Your task to perform on an android device: turn off notifications settings in the gmail app Image 0: 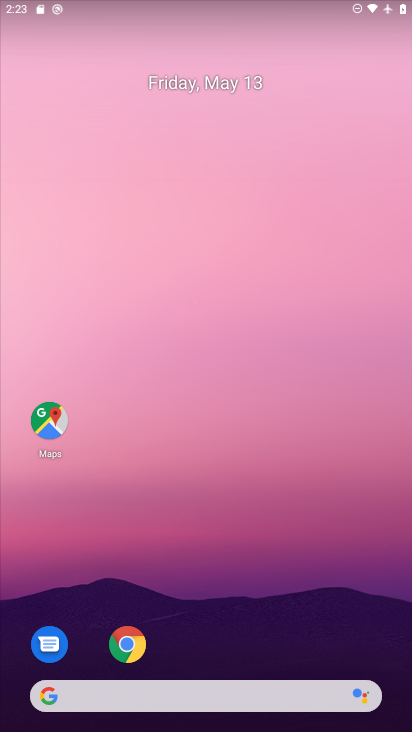
Step 0: drag from (356, 607) to (206, 106)
Your task to perform on an android device: turn off notifications settings in the gmail app Image 1: 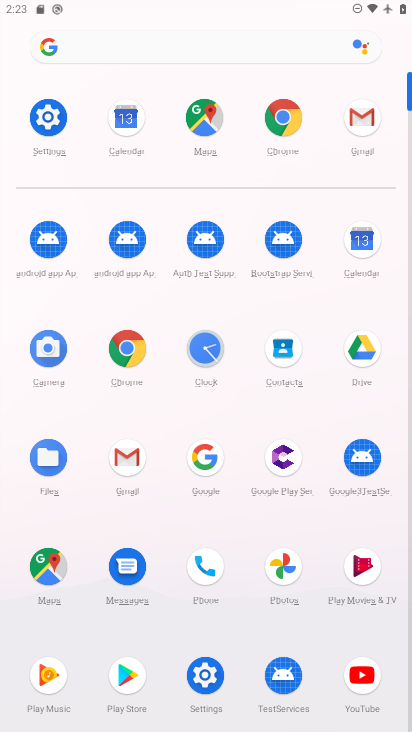
Step 1: click (122, 460)
Your task to perform on an android device: turn off notifications settings in the gmail app Image 2: 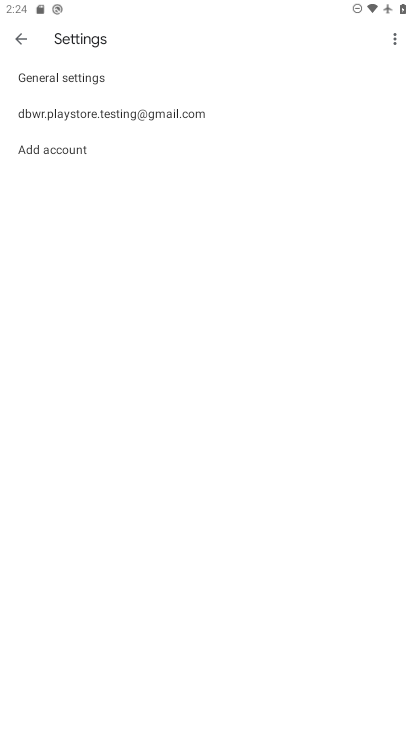
Step 2: click (229, 106)
Your task to perform on an android device: turn off notifications settings in the gmail app Image 3: 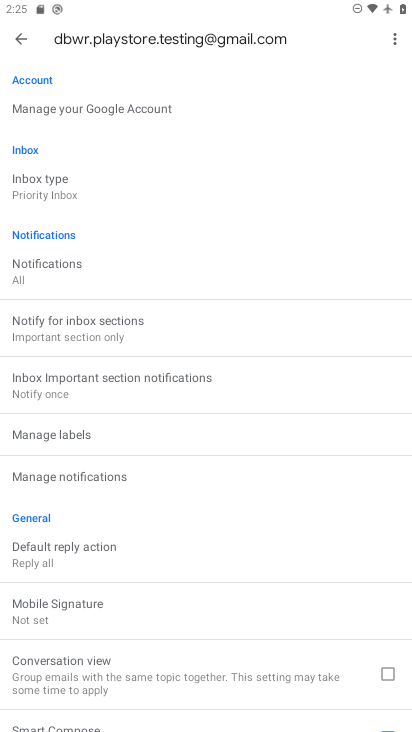
Step 3: click (102, 286)
Your task to perform on an android device: turn off notifications settings in the gmail app Image 4: 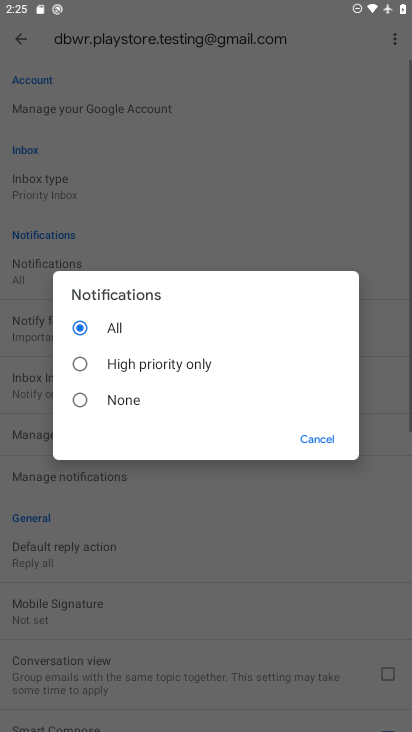
Step 4: click (114, 398)
Your task to perform on an android device: turn off notifications settings in the gmail app Image 5: 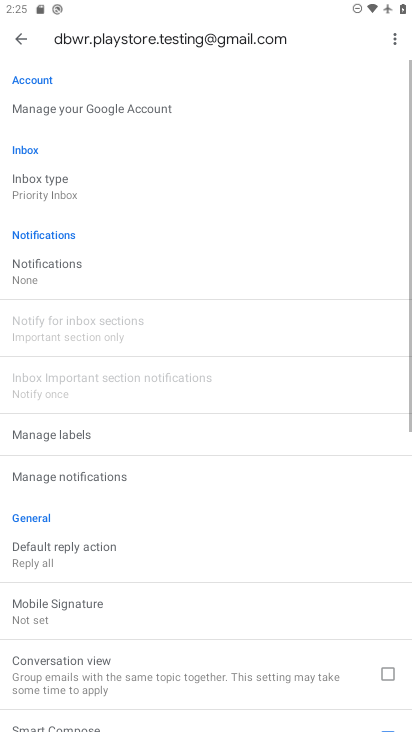
Step 5: task complete